Your task to perform on an android device: check out phone information Image 0: 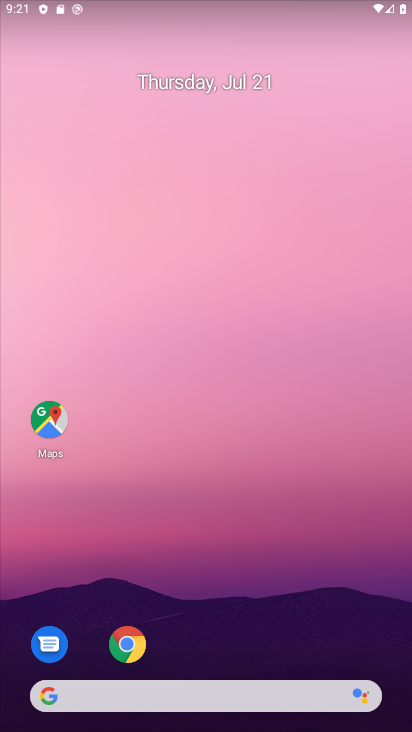
Step 0: drag from (243, 645) to (227, 55)
Your task to perform on an android device: check out phone information Image 1: 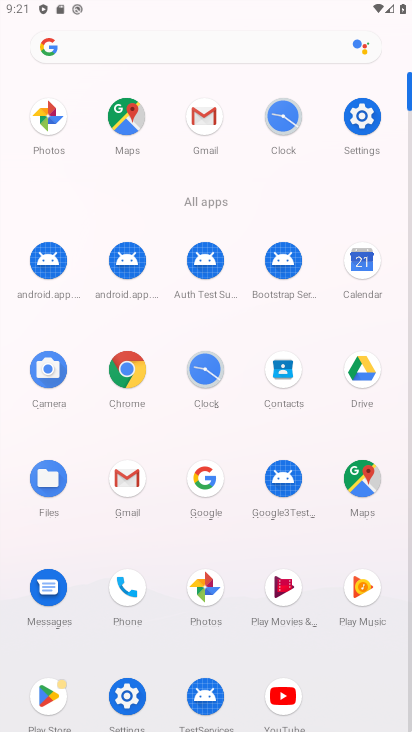
Step 1: task complete